Your task to perform on an android device: Open wifi settings Image 0: 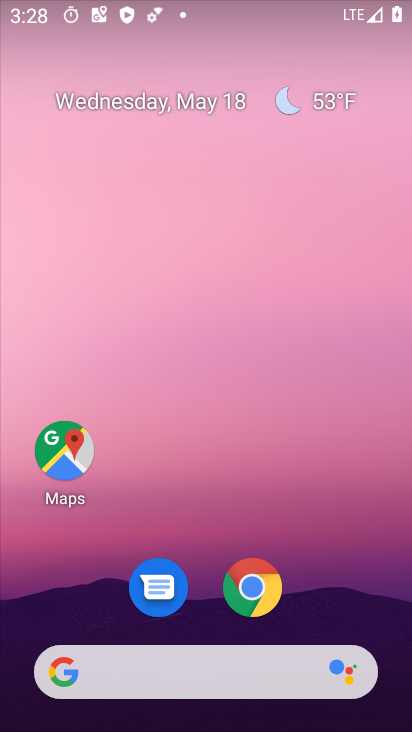
Step 0: drag from (235, 540) to (235, 266)
Your task to perform on an android device: Open wifi settings Image 1: 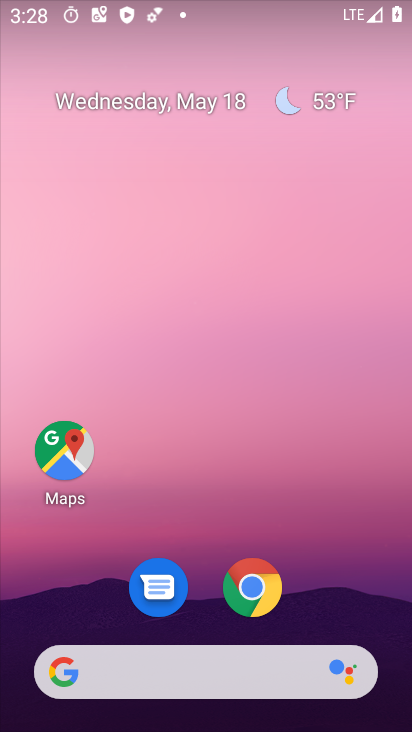
Step 1: drag from (259, 669) to (266, 226)
Your task to perform on an android device: Open wifi settings Image 2: 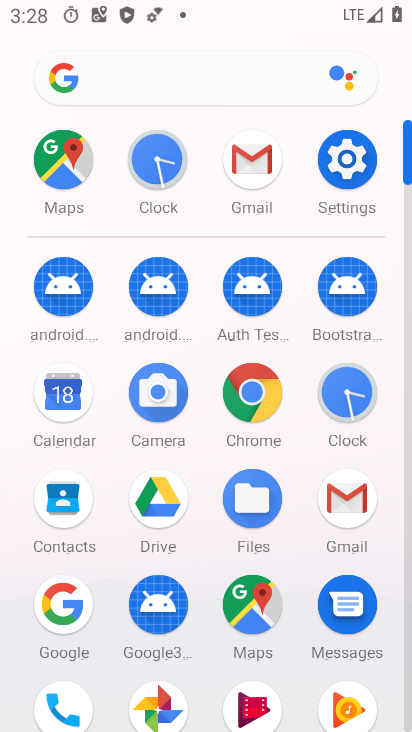
Step 2: click (340, 190)
Your task to perform on an android device: Open wifi settings Image 3: 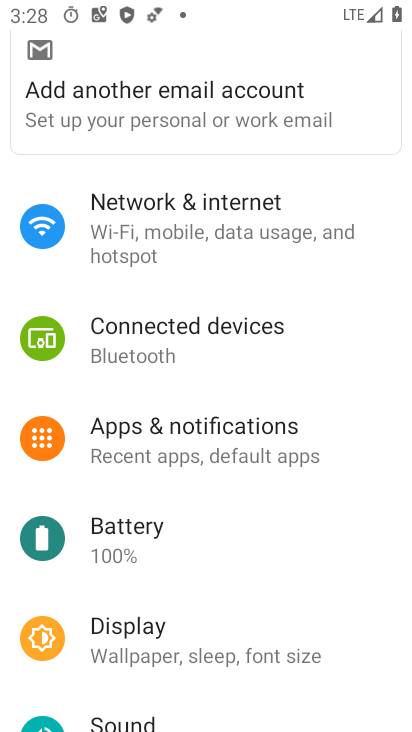
Step 3: click (222, 243)
Your task to perform on an android device: Open wifi settings Image 4: 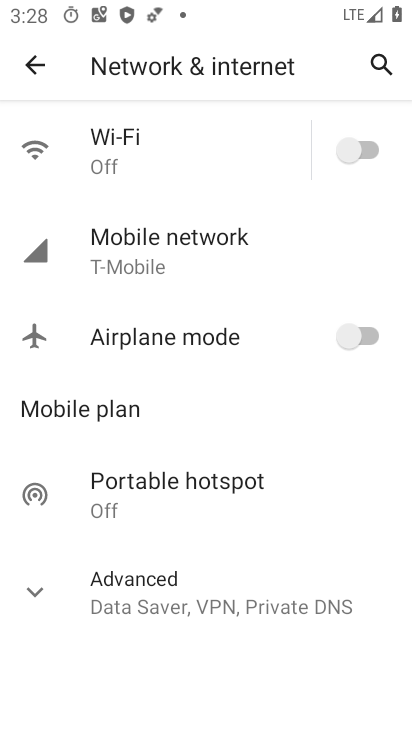
Step 4: click (169, 137)
Your task to perform on an android device: Open wifi settings Image 5: 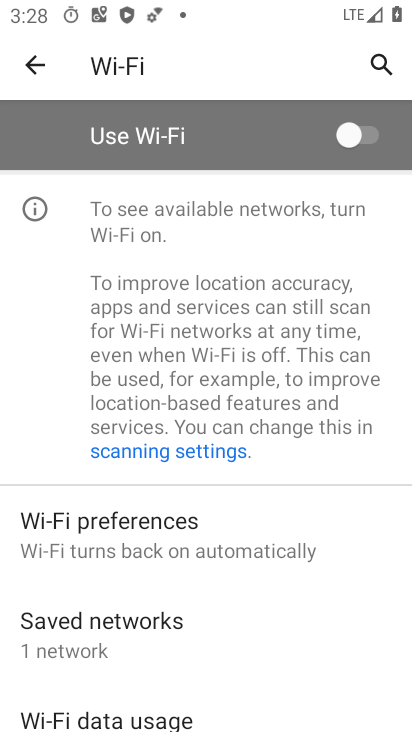
Step 5: task complete